Your task to perform on an android device: Set an alarm for 12pm Image 0: 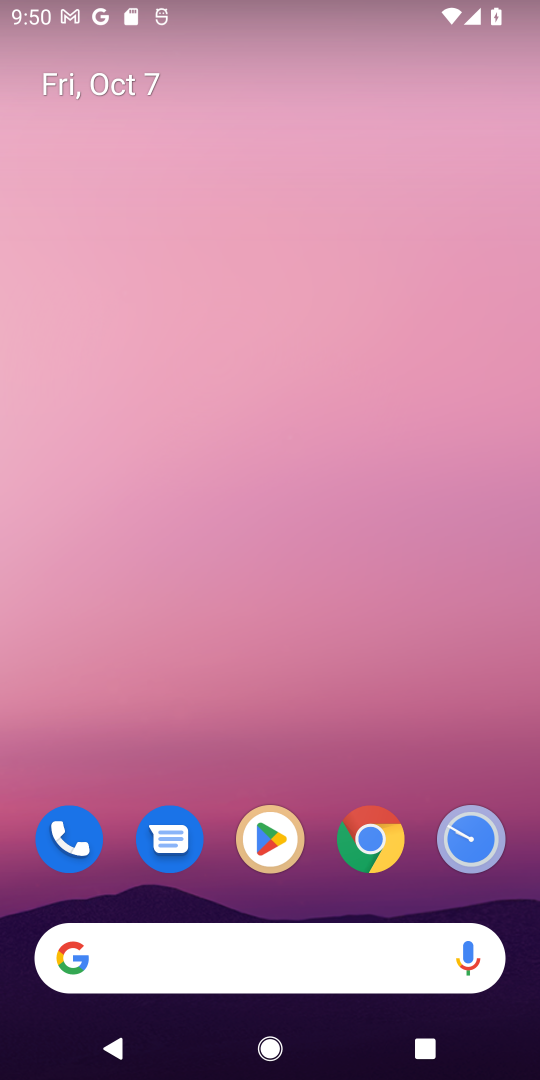
Step 0: click (366, 835)
Your task to perform on an android device: Set an alarm for 12pm Image 1: 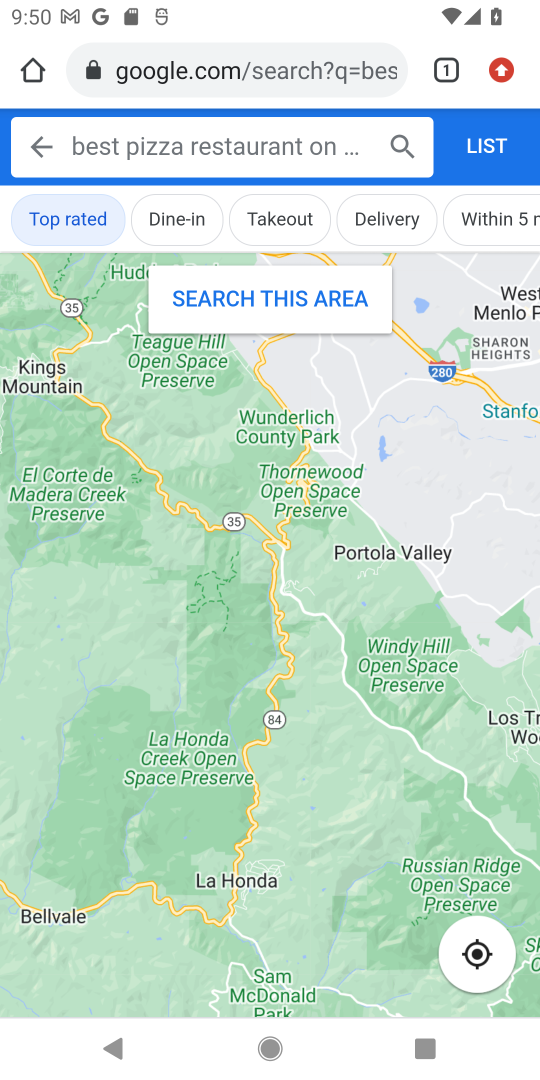
Step 1: click (227, 74)
Your task to perform on an android device: Set an alarm for 12pm Image 2: 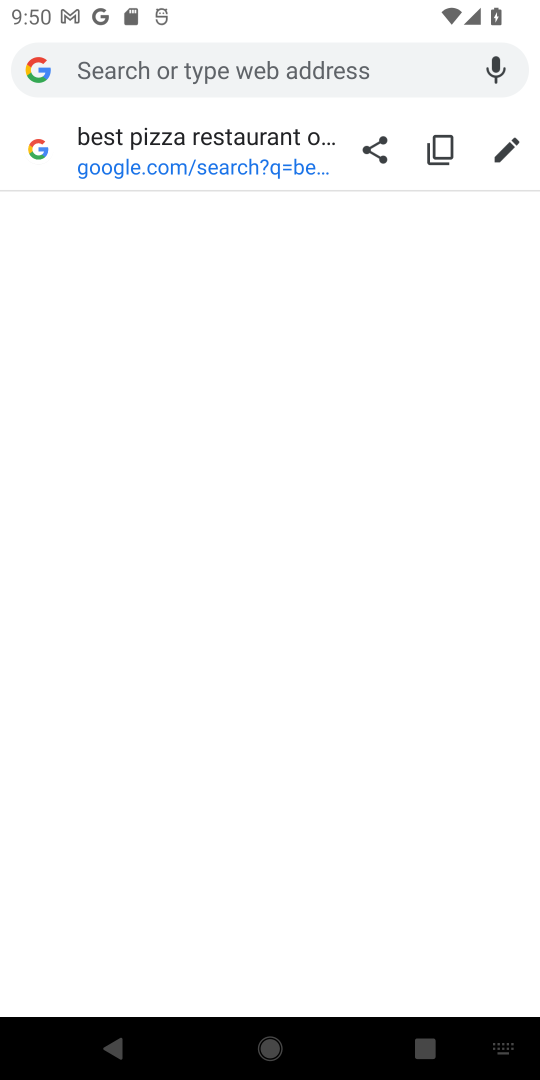
Step 2: press home button
Your task to perform on an android device: Set an alarm for 12pm Image 3: 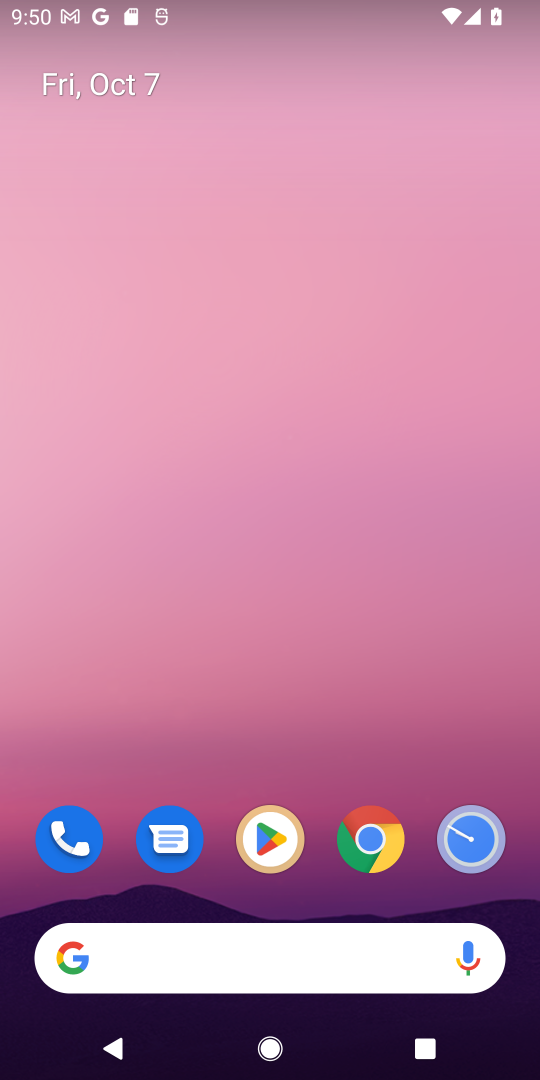
Step 3: drag from (264, 717) to (328, 298)
Your task to perform on an android device: Set an alarm for 12pm Image 4: 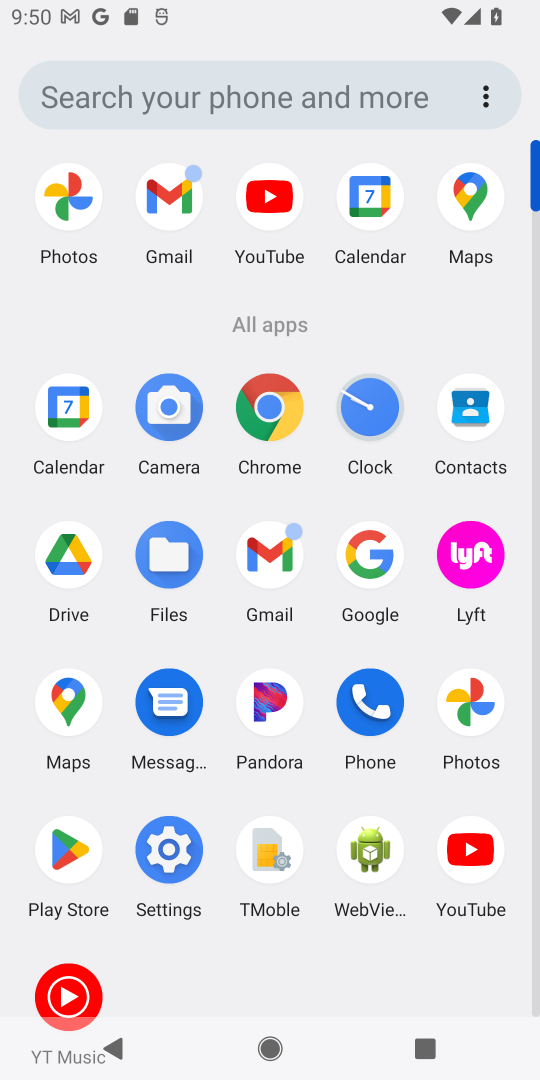
Step 4: click (363, 425)
Your task to perform on an android device: Set an alarm for 12pm Image 5: 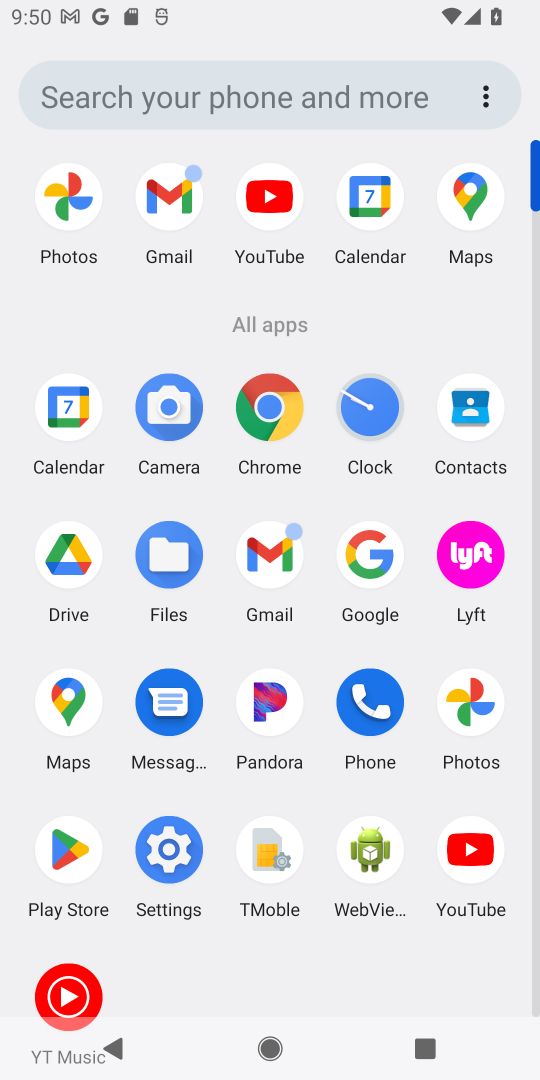
Step 5: click (367, 414)
Your task to perform on an android device: Set an alarm for 12pm Image 6: 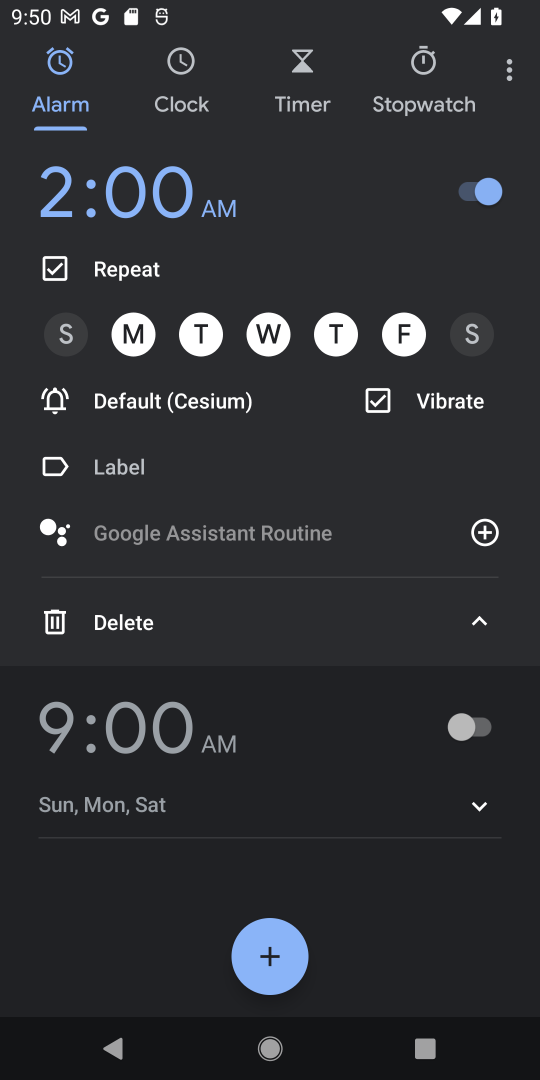
Step 6: click (66, 624)
Your task to perform on an android device: Set an alarm for 12pm Image 7: 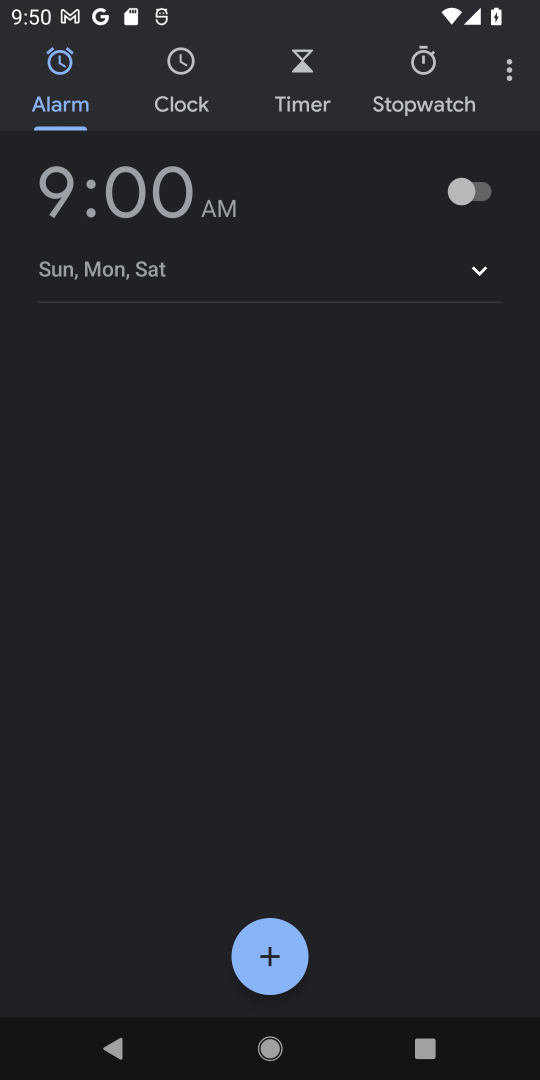
Step 7: click (484, 273)
Your task to perform on an android device: Set an alarm for 12pm Image 8: 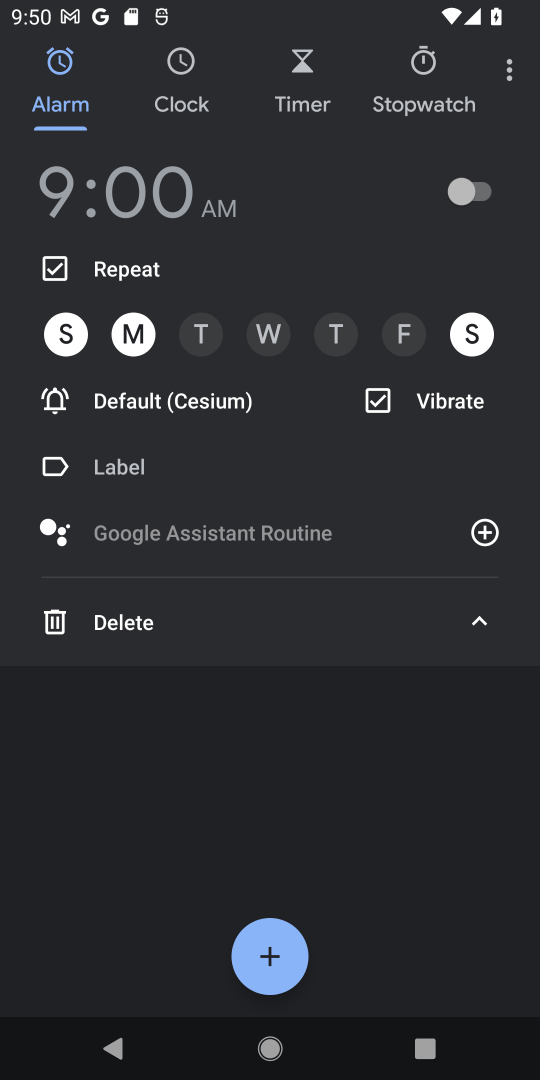
Step 8: click (72, 336)
Your task to perform on an android device: Set an alarm for 12pm Image 9: 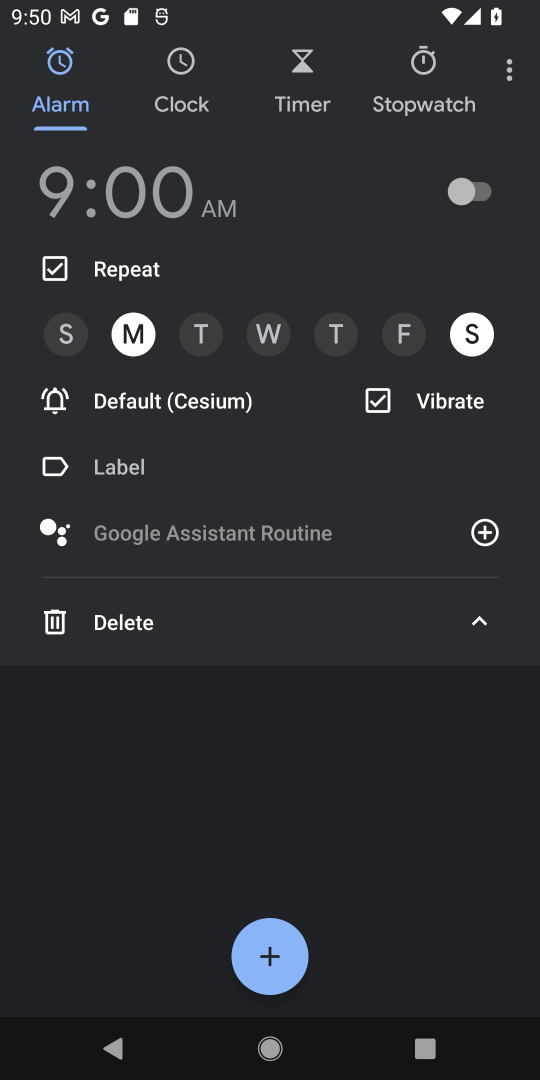
Step 9: click (138, 339)
Your task to perform on an android device: Set an alarm for 12pm Image 10: 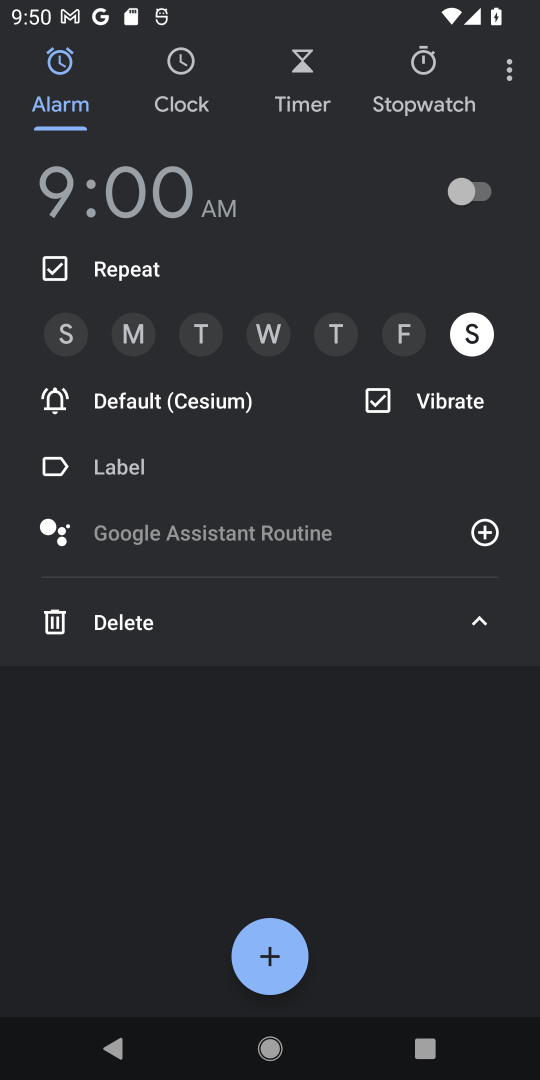
Step 10: click (471, 343)
Your task to perform on an android device: Set an alarm for 12pm Image 11: 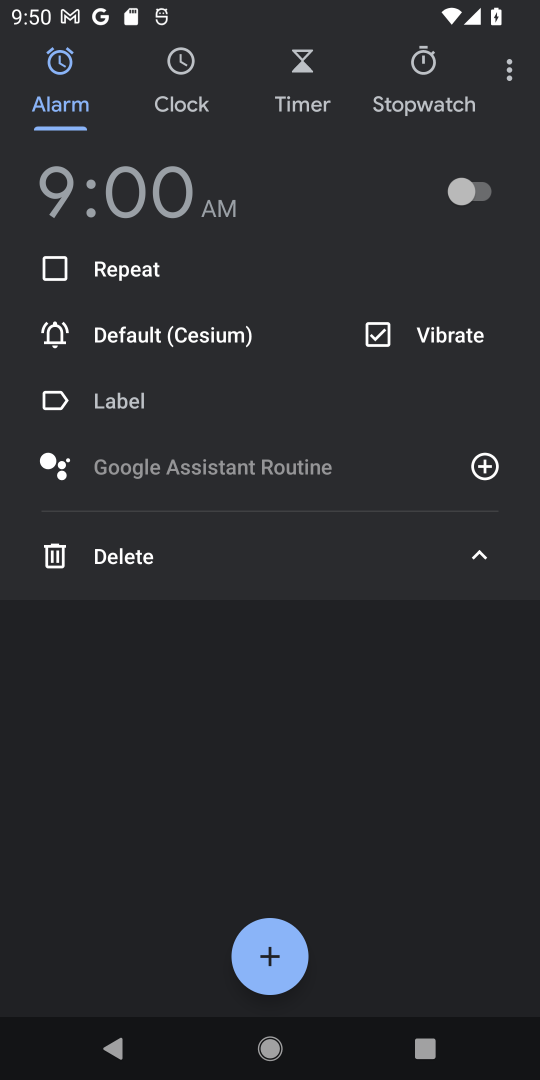
Step 11: click (156, 219)
Your task to perform on an android device: Set an alarm for 12pm Image 12: 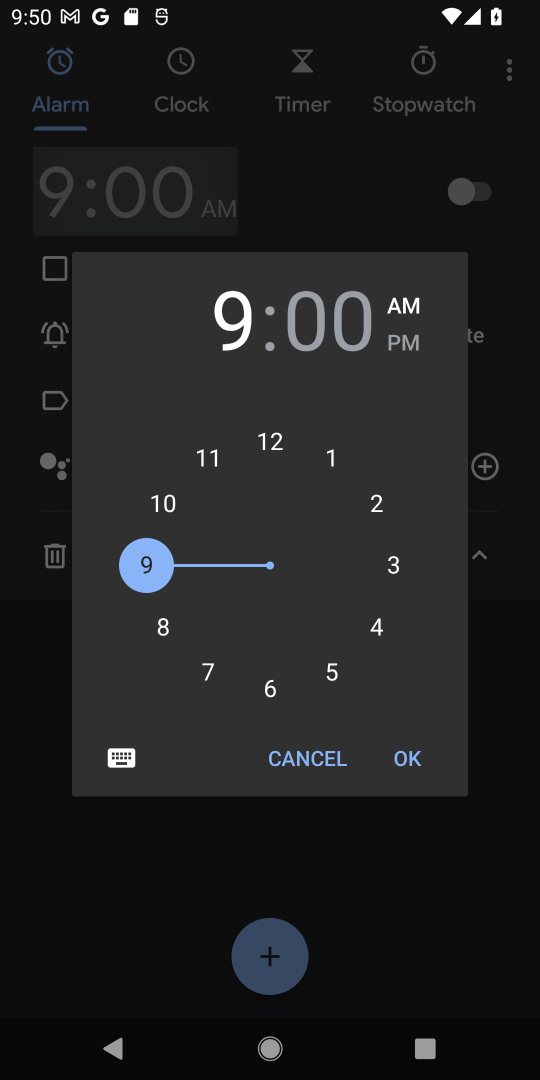
Step 12: click (238, 213)
Your task to perform on an android device: Set an alarm for 12pm Image 13: 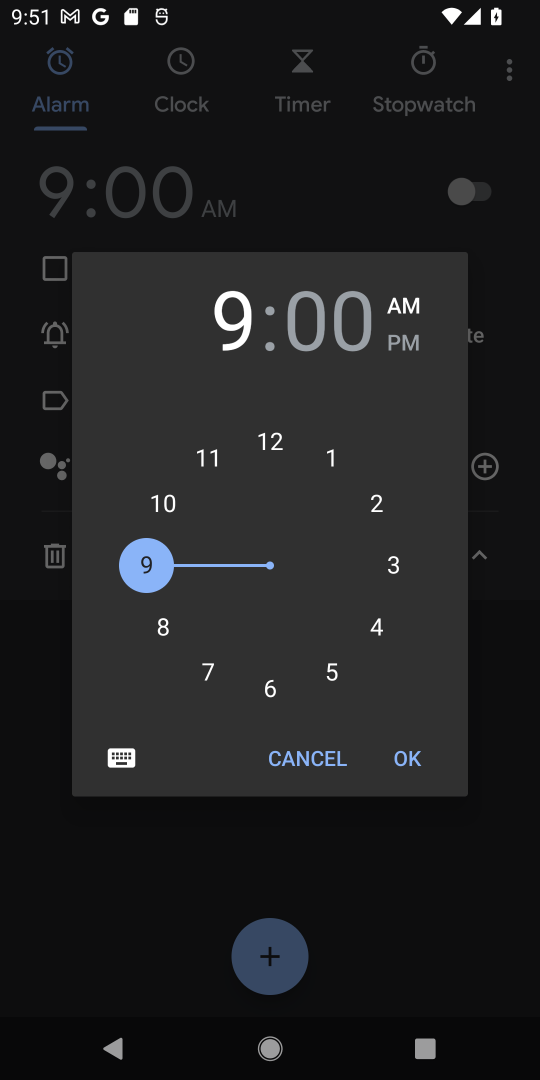
Step 13: click (374, 500)
Your task to perform on an android device: Set an alarm for 12pm Image 14: 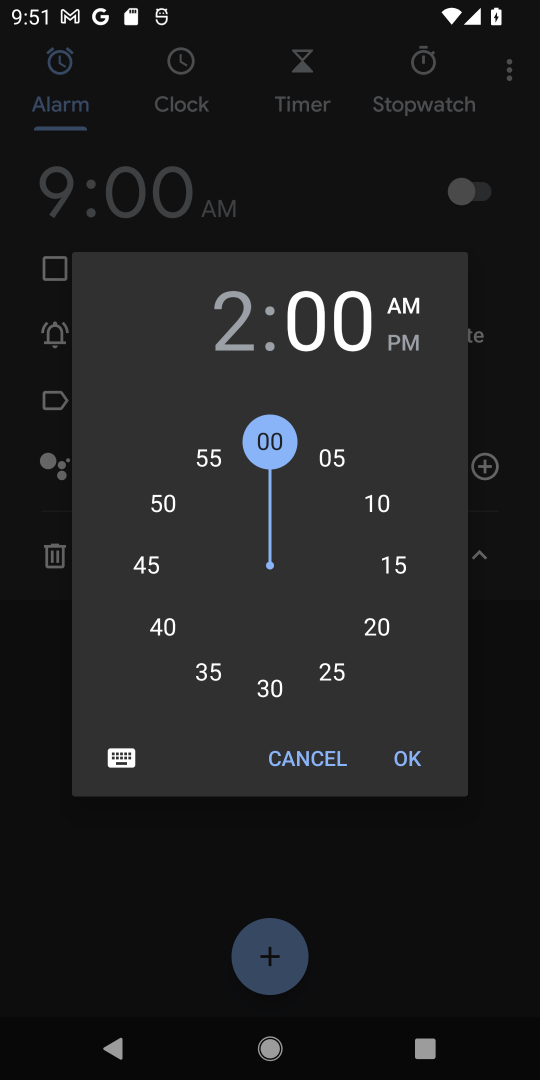
Step 14: click (422, 763)
Your task to perform on an android device: Set an alarm for 12pm Image 15: 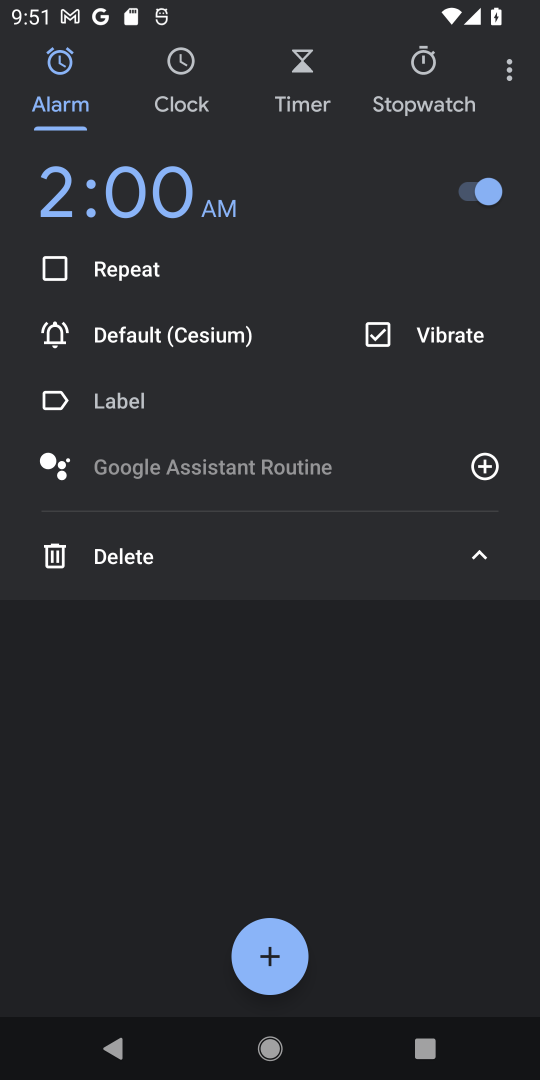
Step 15: click (221, 213)
Your task to perform on an android device: Set an alarm for 12pm Image 16: 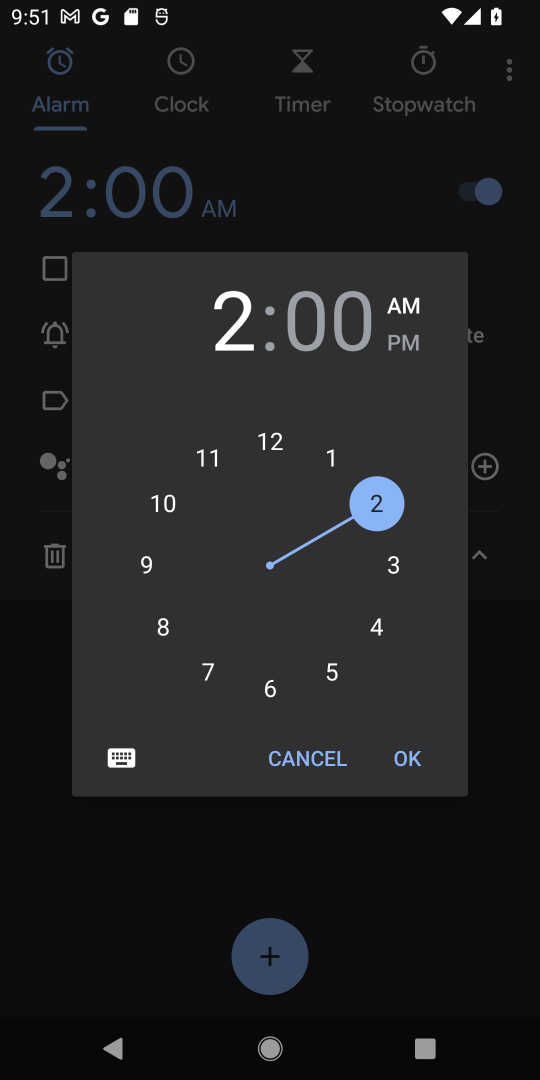
Step 16: click (268, 445)
Your task to perform on an android device: Set an alarm for 12pm Image 17: 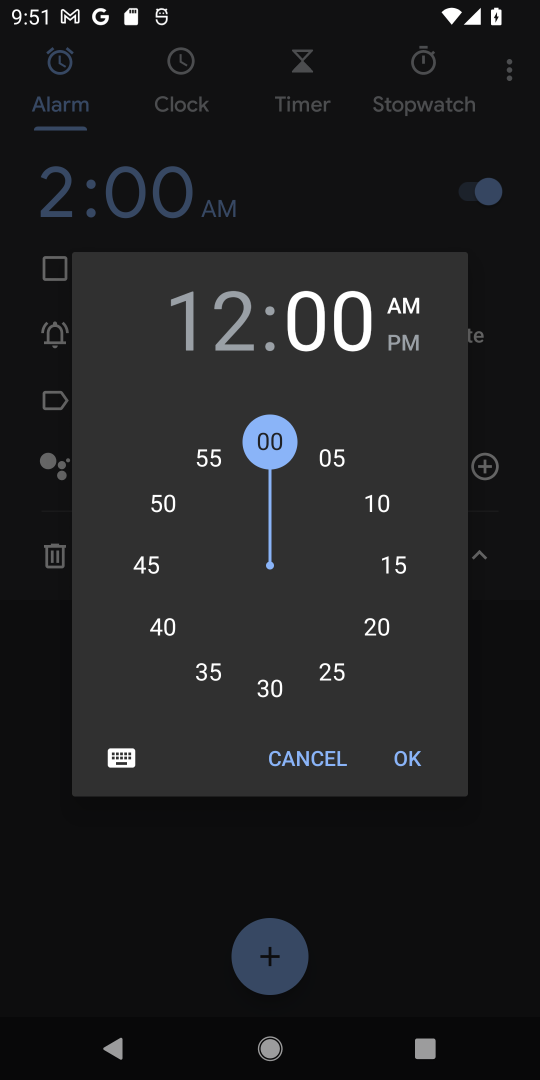
Step 17: click (411, 760)
Your task to perform on an android device: Set an alarm for 12pm Image 18: 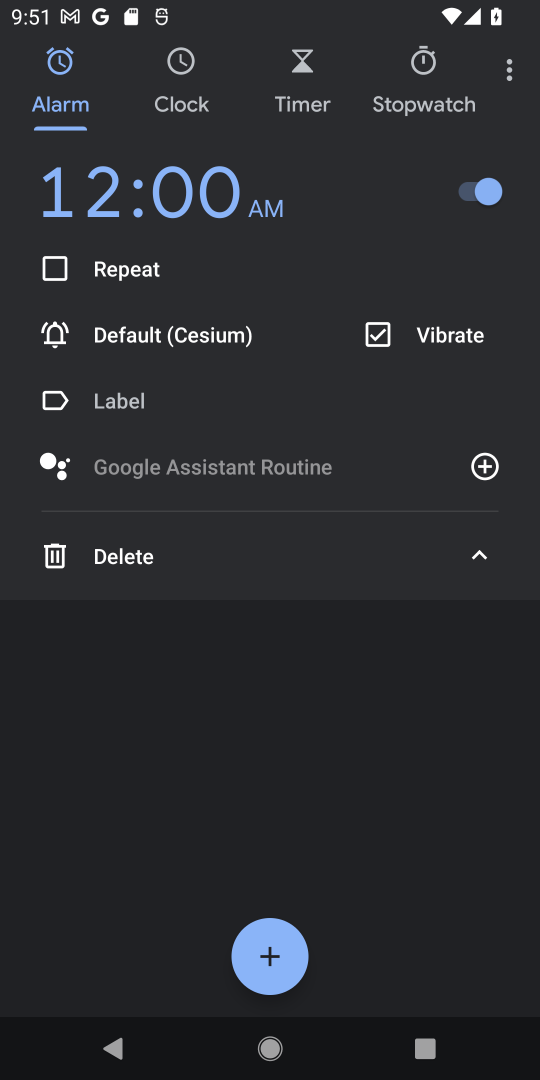
Step 18: click (254, 212)
Your task to perform on an android device: Set an alarm for 12pm Image 19: 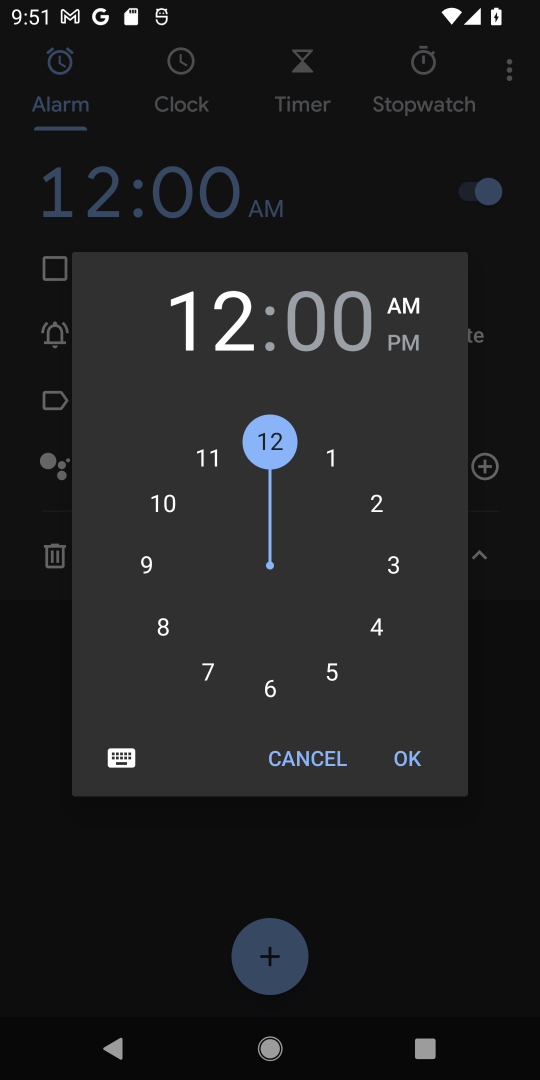
Step 19: click (404, 344)
Your task to perform on an android device: Set an alarm for 12pm Image 20: 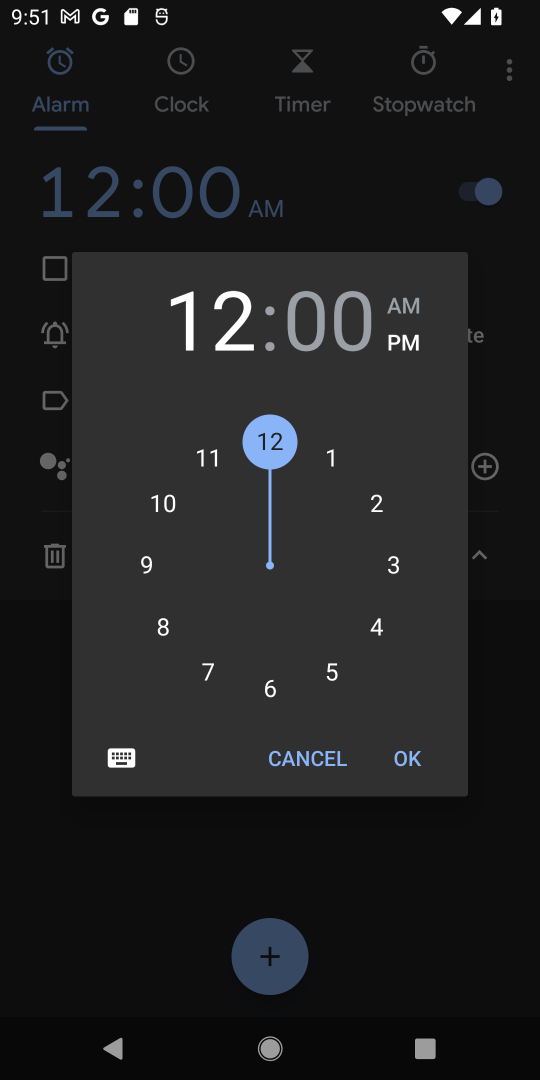
Step 20: click (426, 758)
Your task to perform on an android device: Set an alarm for 12pm Image 21: 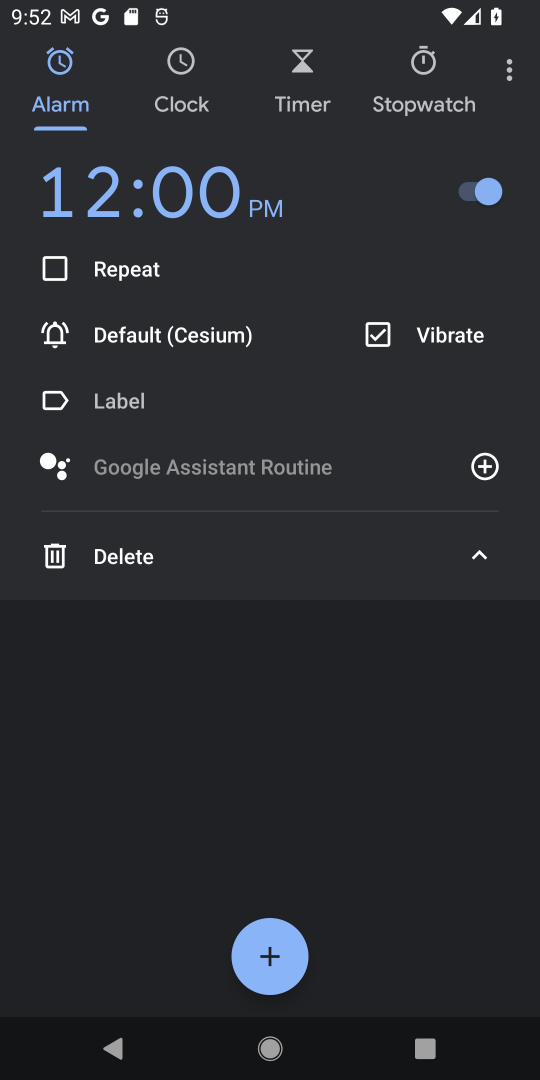
Step 21: task complete